Your task to perform on an android device: turn on the 24-hour format for clock Image 0: 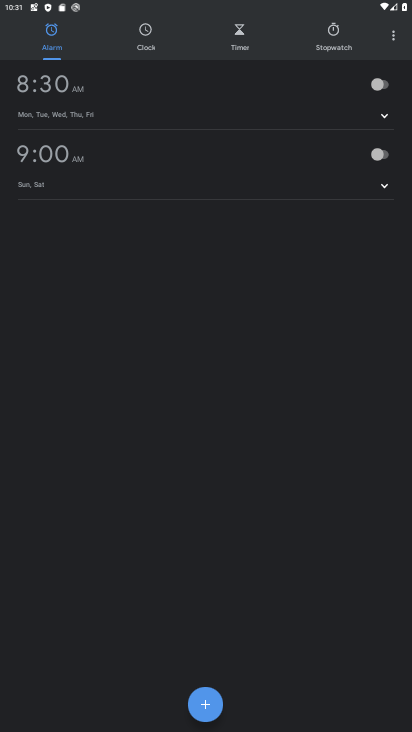
Step 0: click (396, 29)
Your task to perform on an android device: turn on the 24-hour format for clock Image 1: 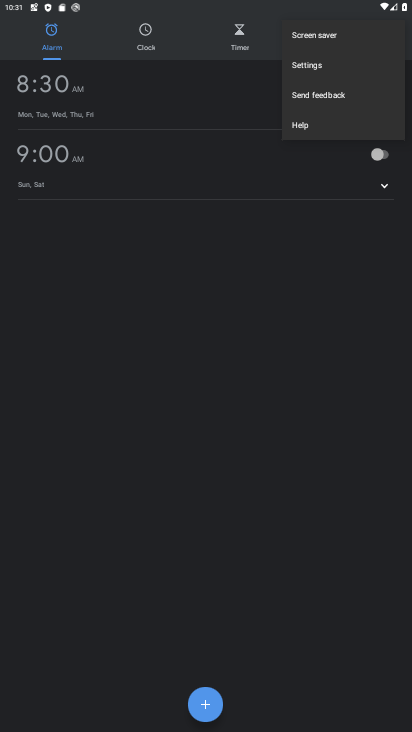
Step 1: click (316, 64)
Your task to perform on an android device: turn on the 24-hour format for clock Image 2: 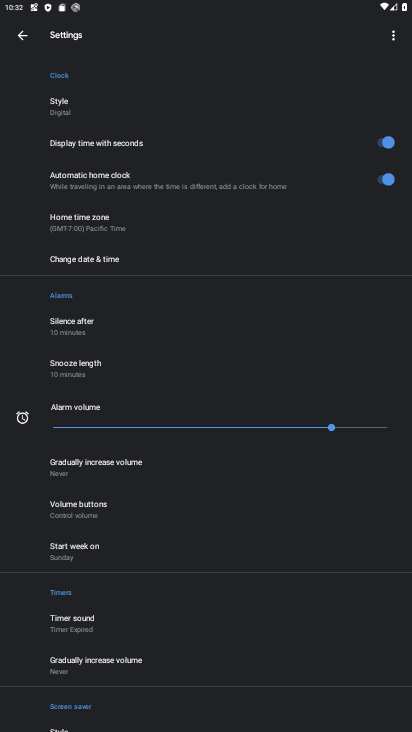
Step 2: click (155, 264)
Your task to perform on an android device: turn on the 24-hour format for clock Image 3: 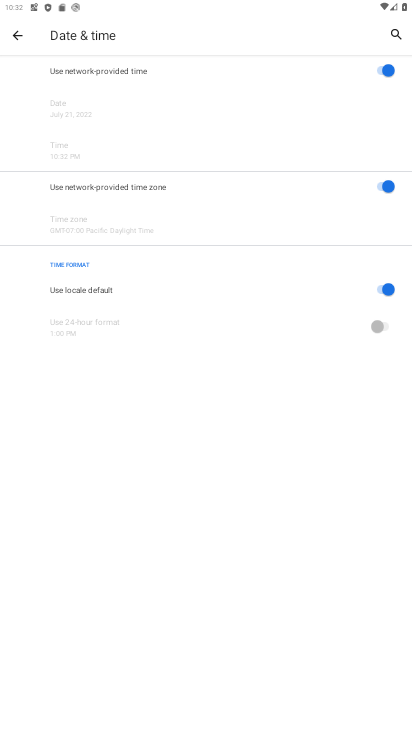
Step 3: click (376, 288)
Your task to perform on an android device: turn on the 24-hour format for clock Image 4: 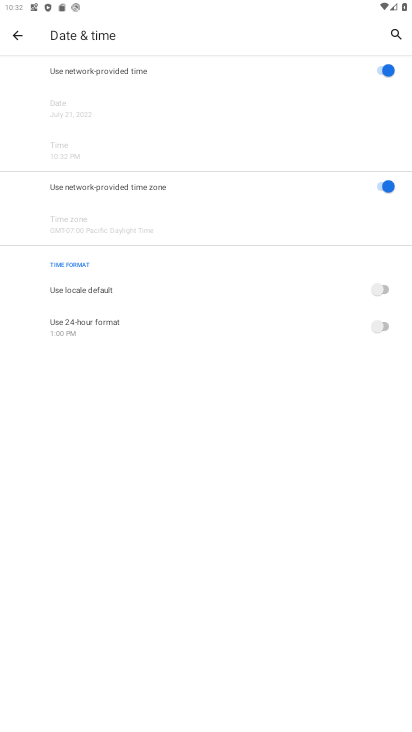
Step 4: click (394, 321)
Your task to perform on an android device: turn on the 24-hour format for clock Image 5: 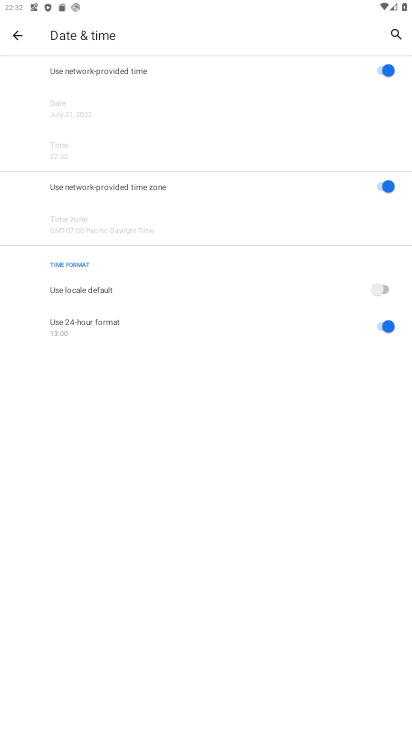
Step 5: task complete